Your task to perform on an android device: Open the stopwatch Image 0: 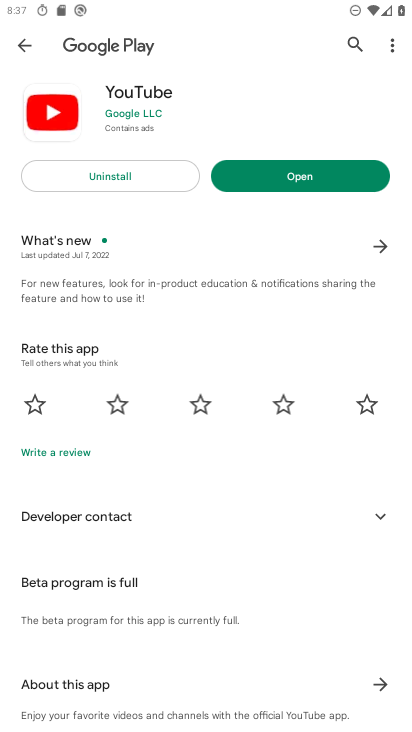
Step 0: press home button
Your task to perform on an android device: Open the stopwatch Image 1: 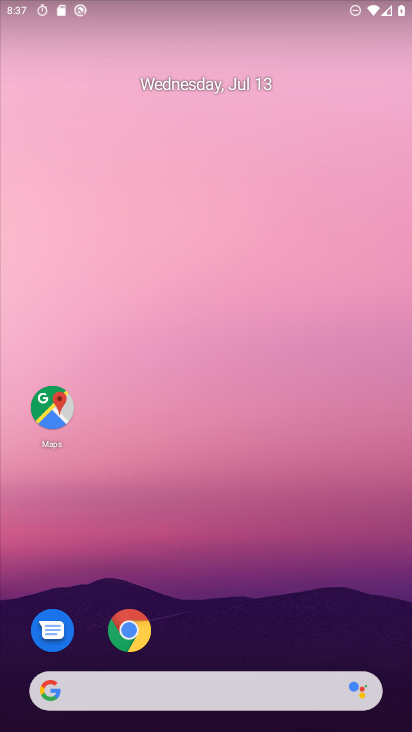
Step 1: drag from (396, 667) to (344, 53)
Your task to perform on an android device: Open the stopwatch Image 2: 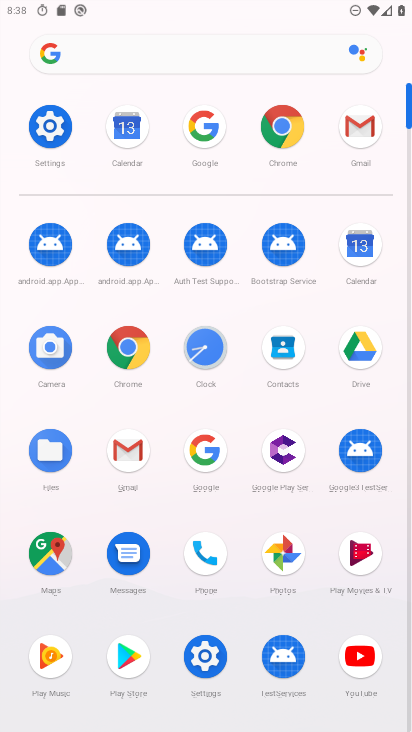
Step 2: click (207, 351)
Your task to perform on an android device: Open the stopwatch Image 3: 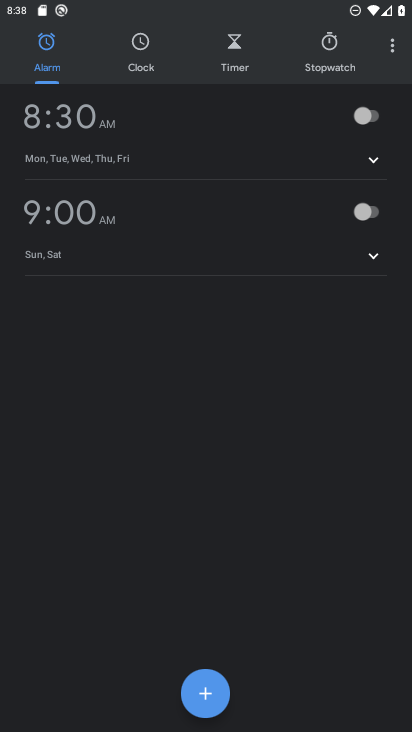
Step 3: click (322, 55)
Your task to perform on an android device: Open the stopwatch Image 4: 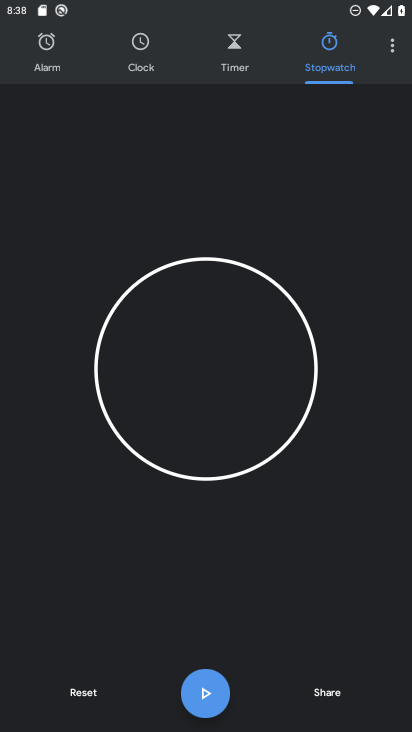
Step 4: task complete